Your task to perform on an android device: Go to eBay Image 0: 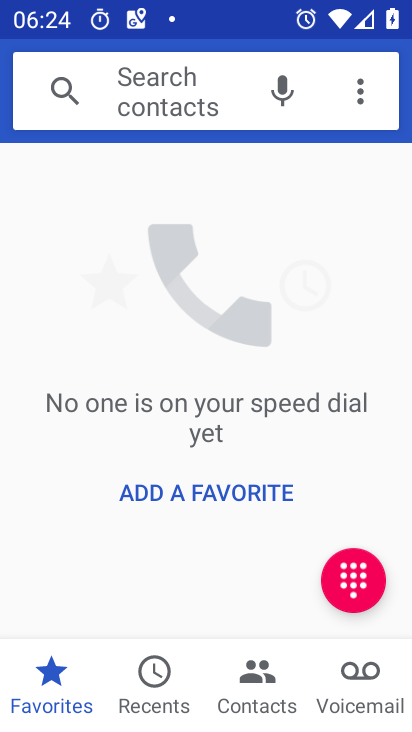
Step 0: press home button
Your task to perform on an android device: Go to eBay Image 1: 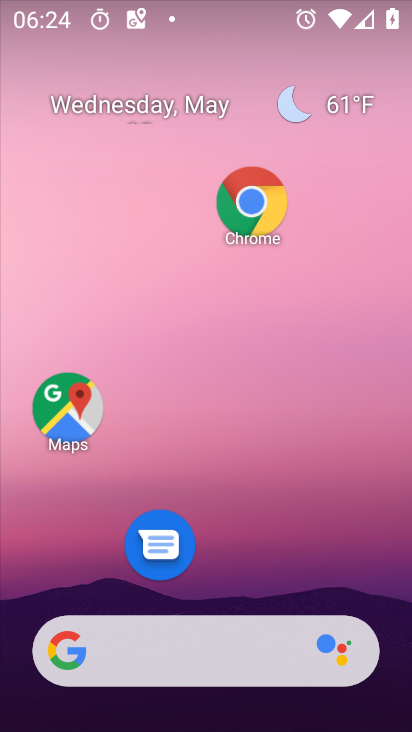
Step 1: click (253, 224)
Your task to perform on an android device: Go to eBay Image 2: 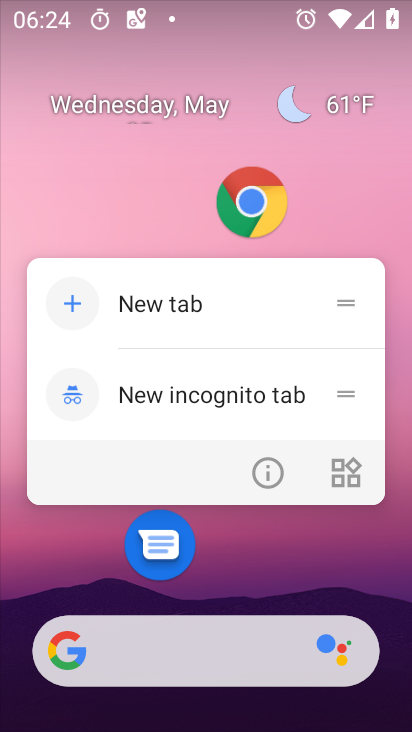
Step 2: click (265, 202)
Your task to perform on an android device: Go to eBay Image 3: 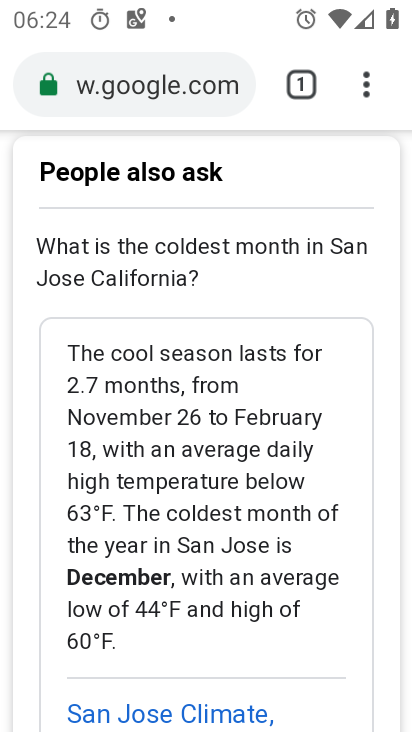
Step 3: click (307, 76)
Your task to perform on an android device: Go to eBay Image 4: 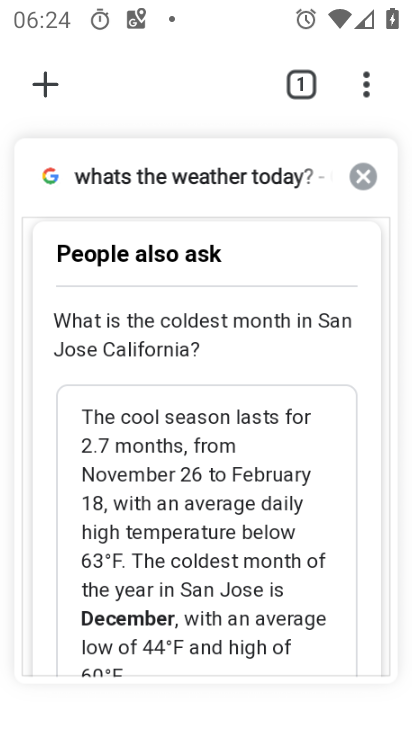
Step 4: click (364, 178)
Your task to perform on an android device: Go to eBay Image 5: 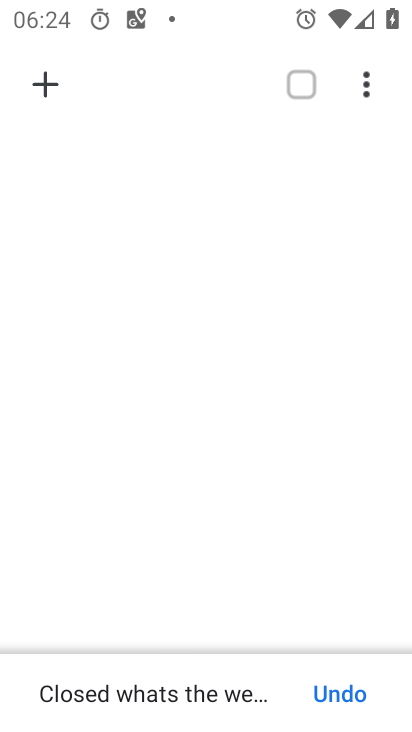
Step 5: click (55, 88)
Your task to perform on an android device: Go to eBay Image 6: 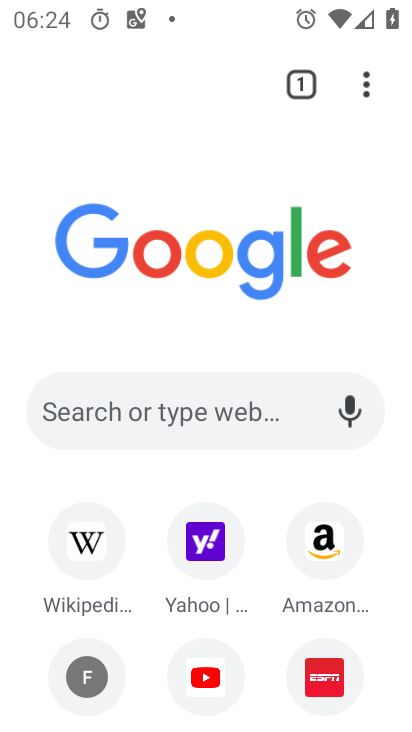
Step 6: drag from (143, 620) to (154, 301)
Your task to perform on an android device: Go to eBay Image 7: 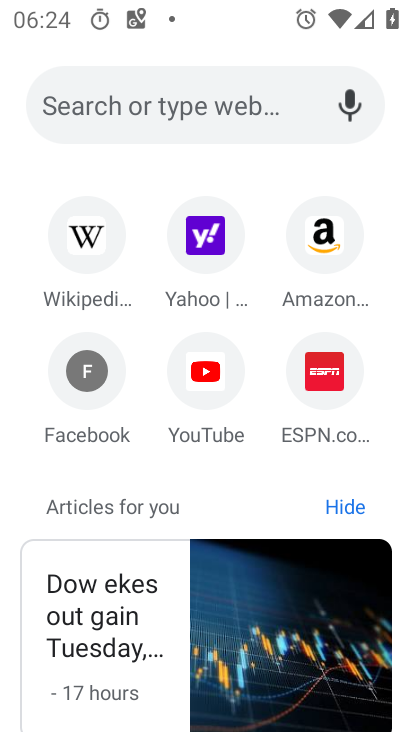
Step 7: drag from (156, 489) to (157, 189)
Your task to perform on an android device: Go to eBay Image 8: 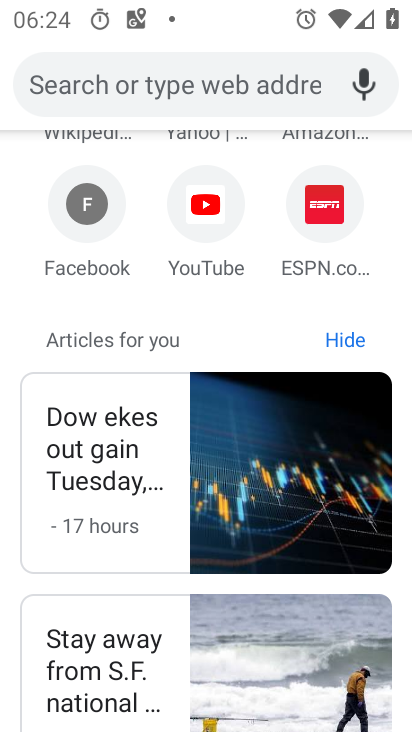
Step 8: drag from (158, 177) to (150, 489)
Your task to perform on an android device: Go to eBay Image 9: 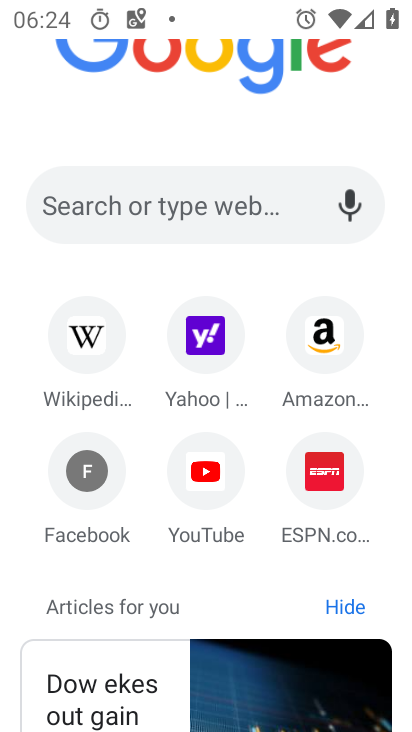
Step 9: click (175, 186)
Your task to perform on an android device: Go to eBay Image 10: 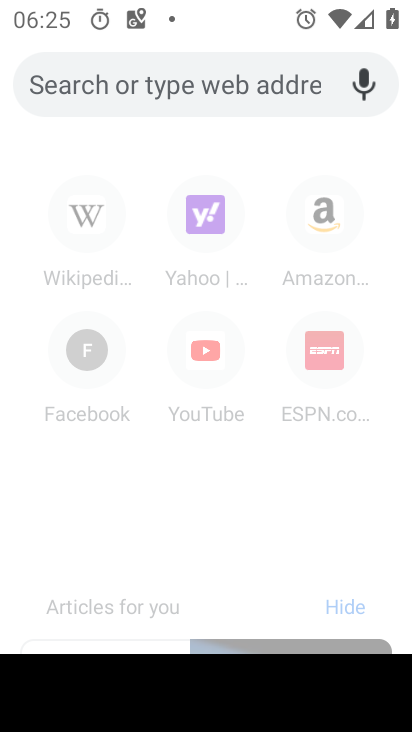
Step 10: type "ebay"
Your task to perform on an android device: Go to eBay Image 11: 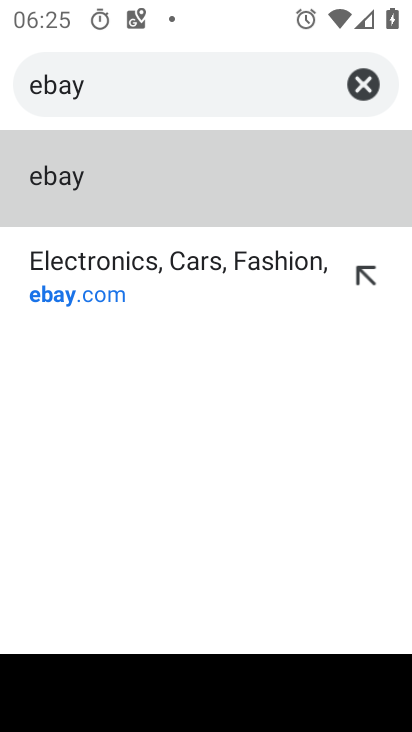
Step 11: click (65, 160)
Your task to perform on an android device: Go to eBay Image 12: 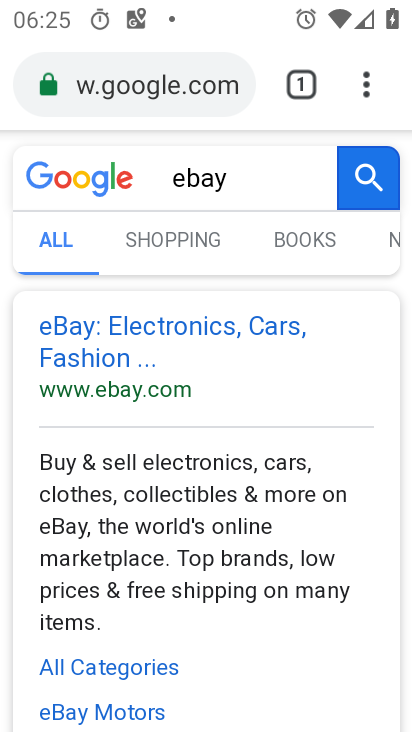
Step 12: click (72, 351)
Your task to perform on an android device: Go to eBay Image 13: 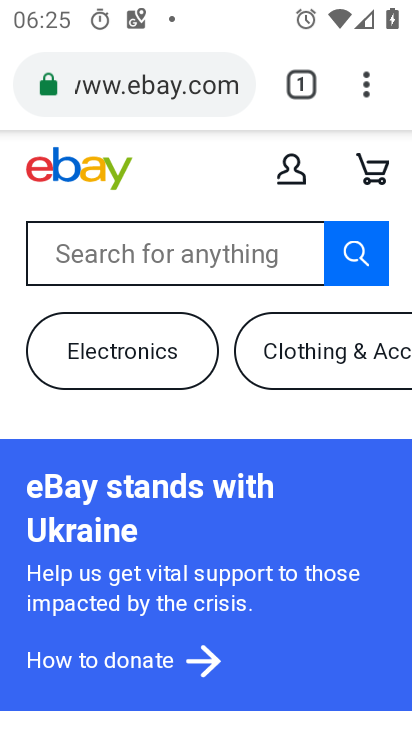
Step 13: task complete